Your task to perform on an android device: turn on improve location accuracy Image 0: 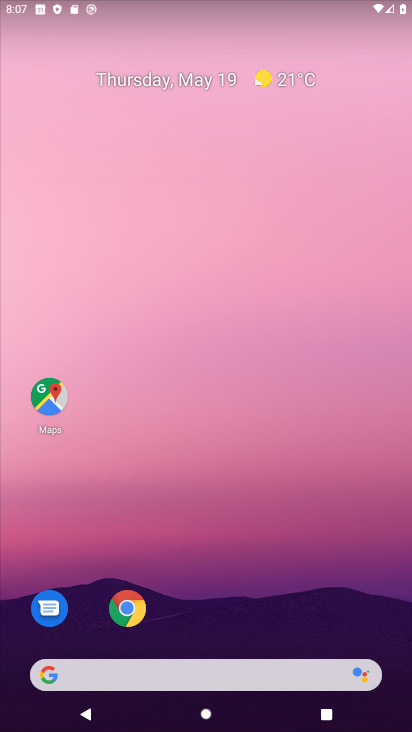
Step 0: drag from (274, 552) to (183, 14)
Your task to perform on an android device: turn on improve location accuracy Image 1: 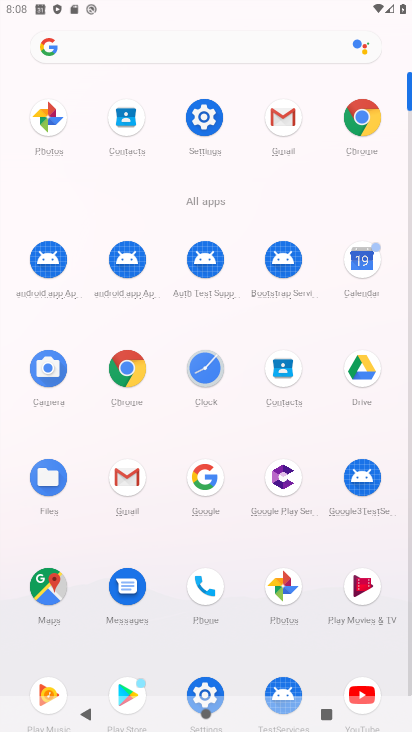
Step 1: click (204, 120)
Your task to perform on an android device: turn on improve location accuracy Image 2: 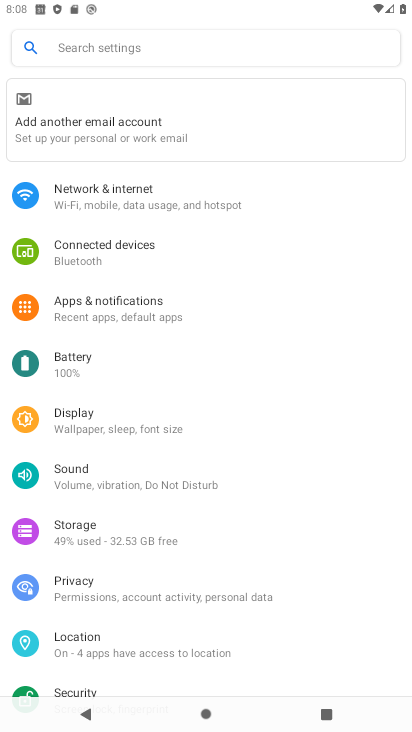
Step 2: click (67, 645)
Your task to perform on an android device: turn on improve location accuracy Image 3: 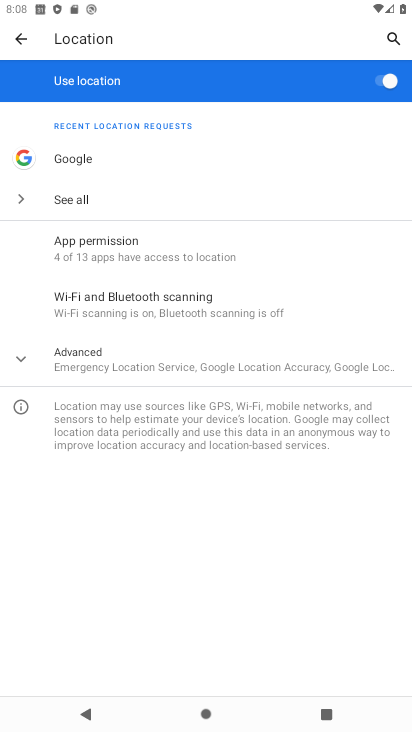
Step 3: click (51, 358)
Your task to perform on an android device: turn on improve location accuracy Image 4: 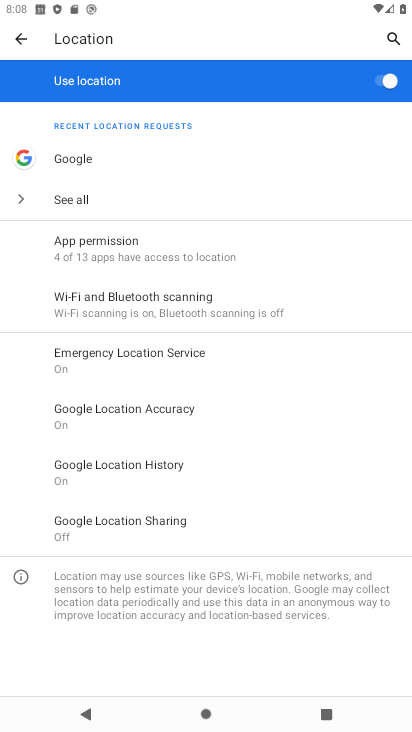
Step 4: click (134, 404)
Your task to perform on an android device: turn on improve location accuracy Image 5: 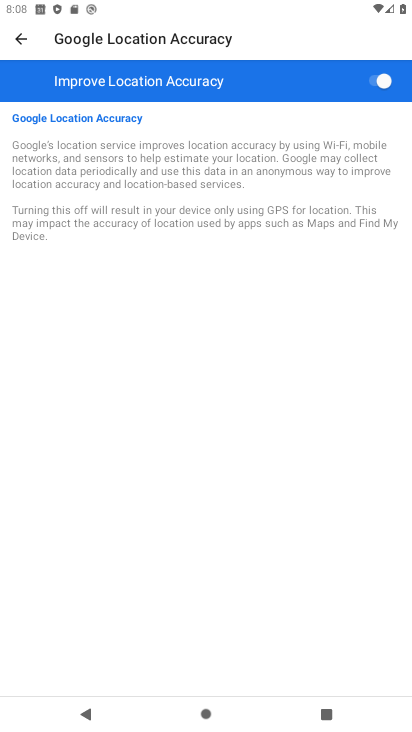
Step 5: task complete